Your task to perform on an android device: open app "Spotify: Music and Podcasts" (install if not already installed), go to login, and select forgot password Image 0: 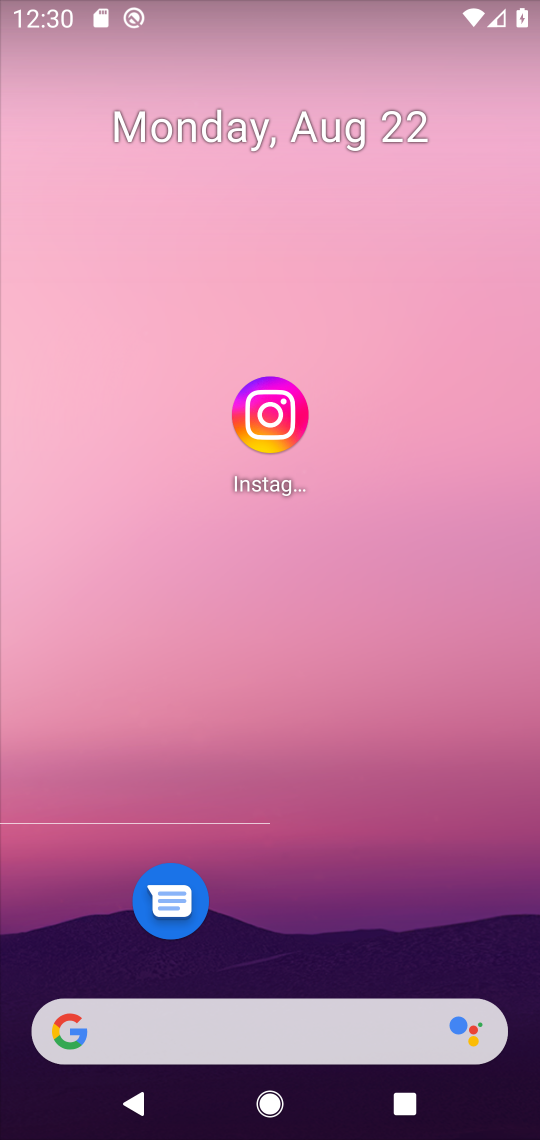
Step 0: drag from (322, 946) to (324, 79)
Your task to perform on an android device: open app "Spotify: Music and Podcasts" (install if not already installed), go to login, and select forgot password Image 1: 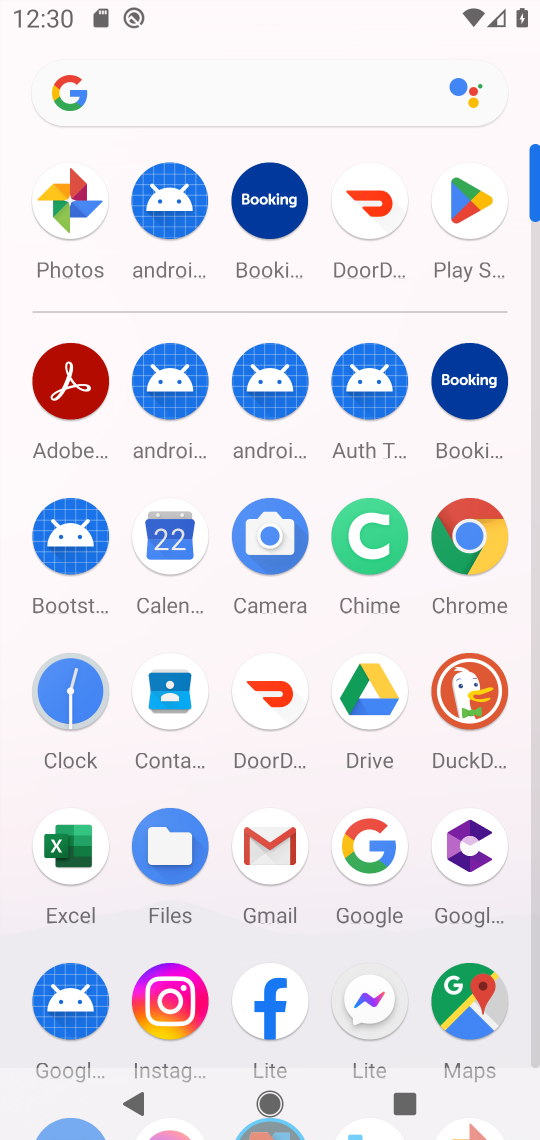
Step 1: click (450, 208)
Your task to perform on an android device: open app "Spotify: Music and Podcasts" (install if not already installed), go to login, and select forgot password Image 2: 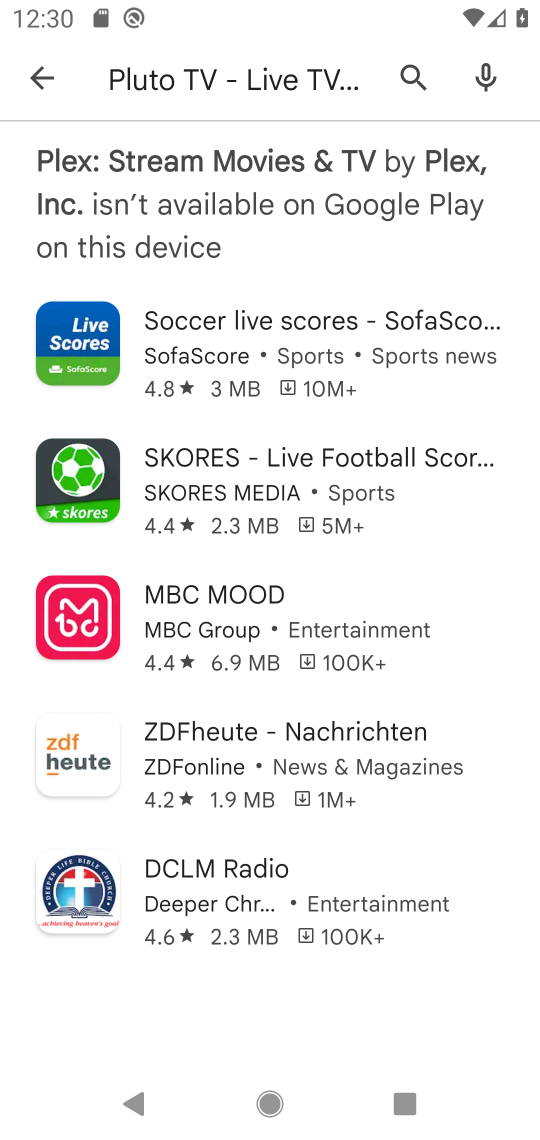
Step 2: click (417, 93)
Your task to perform on an android device: open app "Spotify: Music and Podcasts" (install if not already installed), go to login, and select forgot password Image 3: 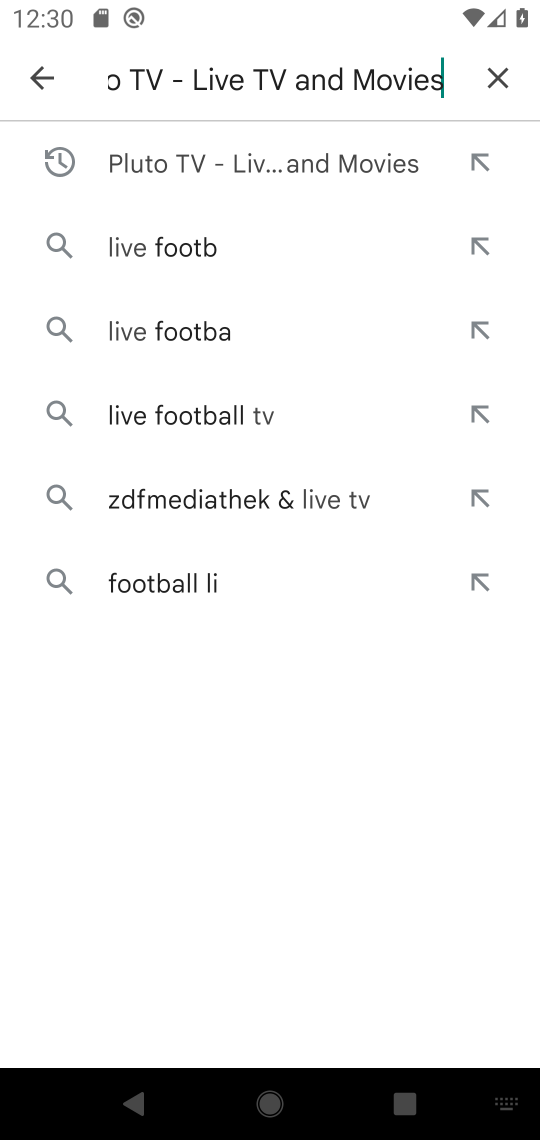
Step 3: click (478, 83)
Your task to perform on an android device: open app "Spotify: Music and Podcasts" (install if not already installed), go to login, and select forgot password Image 4: 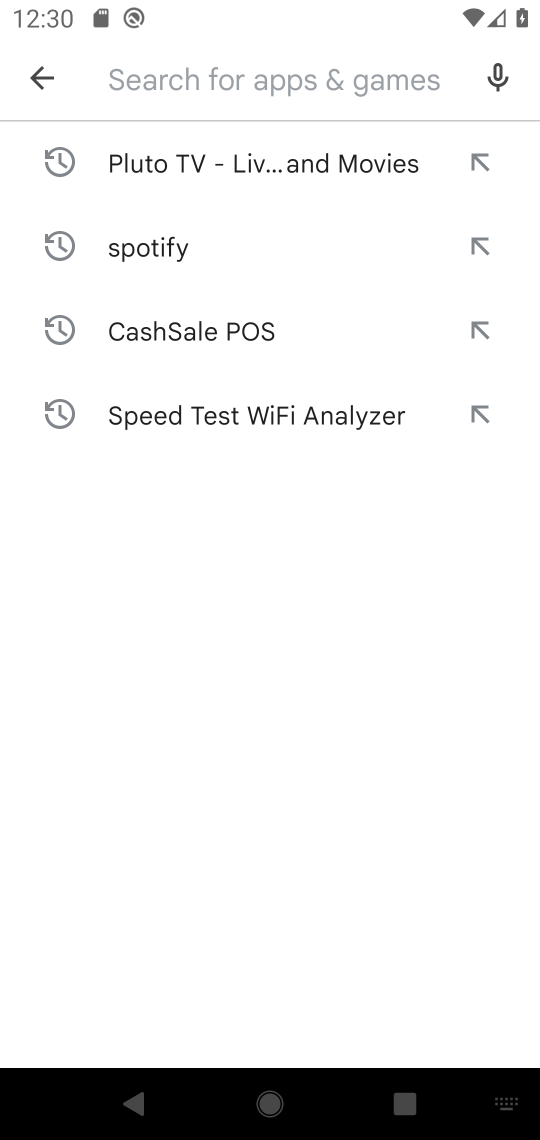
Step 4: type "spotify"
Your task to perform on an android device: open app "Spotify: Music and Podcasts" (install if not already installed), go to login, and select forgot password Image 5: 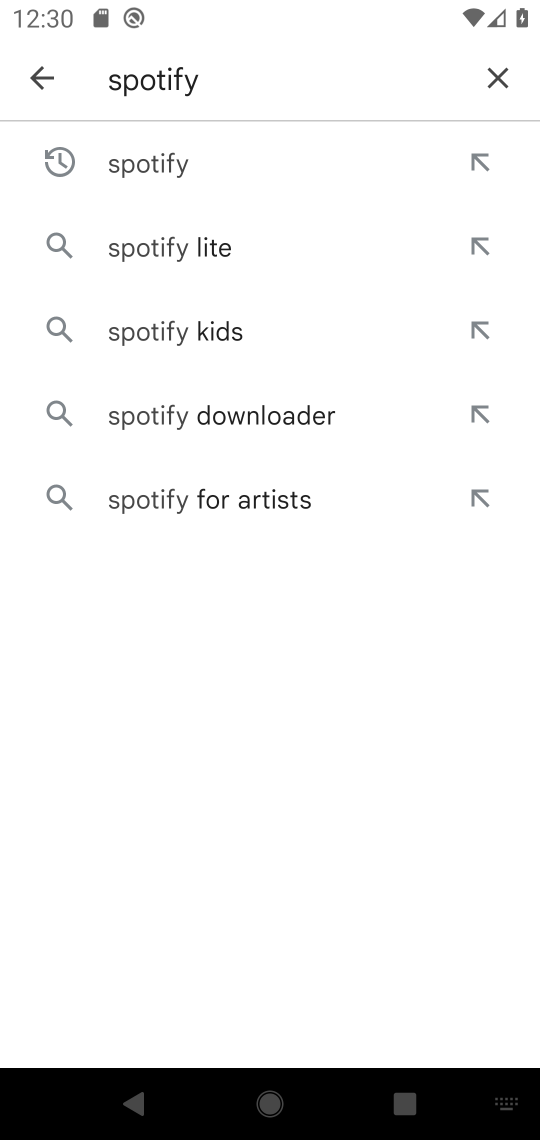
Step 5: click (294, 157)
Your task to perform on an android device: open app "Spotify: Music and Podcasts" (install if not already installed), go to login, and select forgot password Image 6: 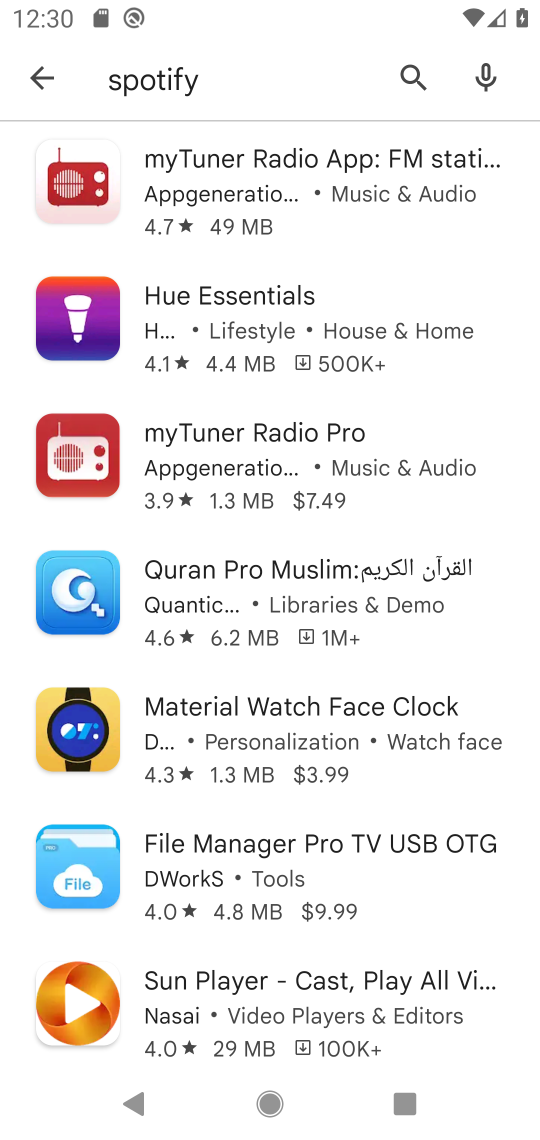
Step 6: task complete